Your task to perform on an android device: Turn off the flashlight Image 0: 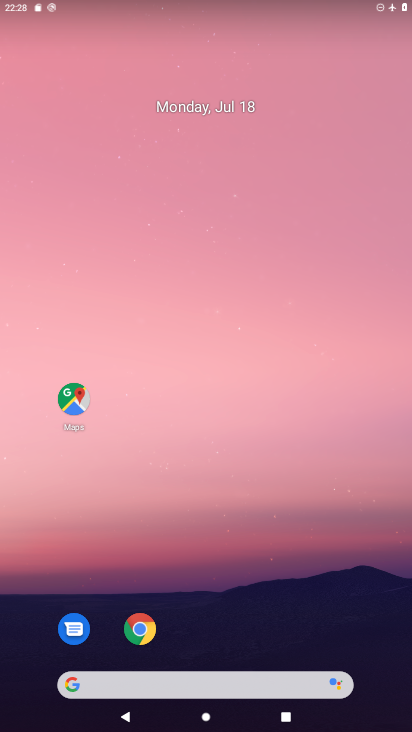
Step 0: drag from (153, 304) to (137, 74)
Your task to perform on an android device: Turn off the flashlight Image 1: 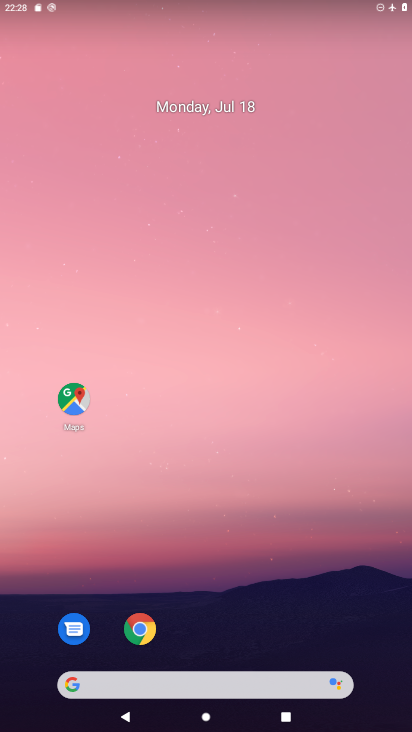
Step 1: drag from (314, 562) to (229, 20)
Your task to perform on an android device: Turn off the flashlight Image 2: 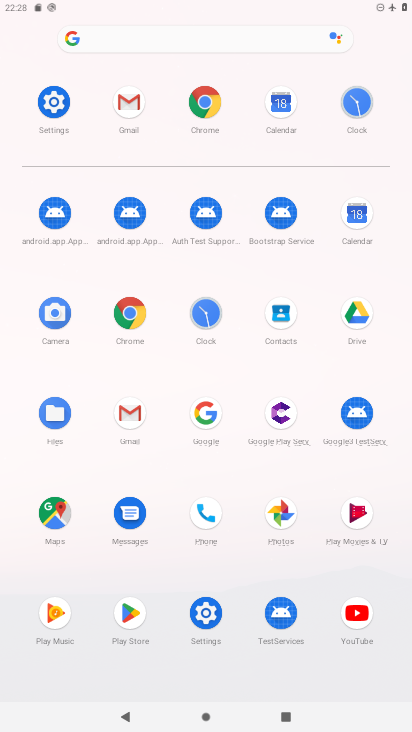
Step 2: click (58, 94)
Your task to perform on an android device: Turn off the flashlight Image 3: 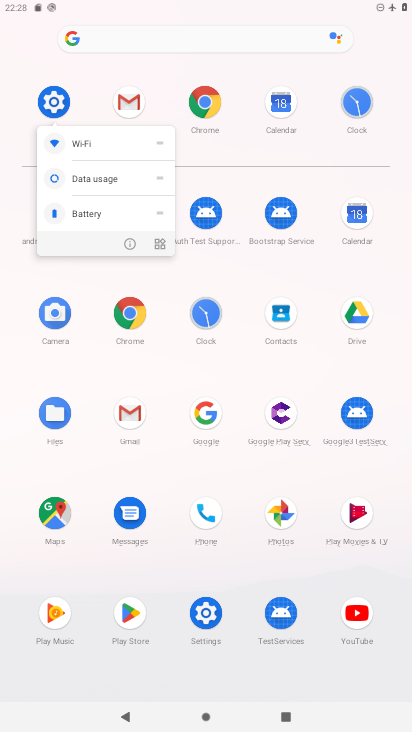
Step 3: click (67, 99)
Your task to perform on an android device: Turn off the flashlight Image 4: 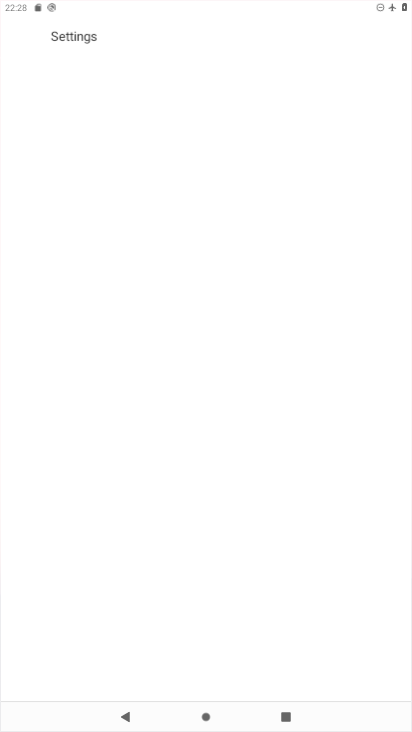
Step 4: click (47, 96)
Your task to perform on an android device: Turn off the flashlight Image 5: 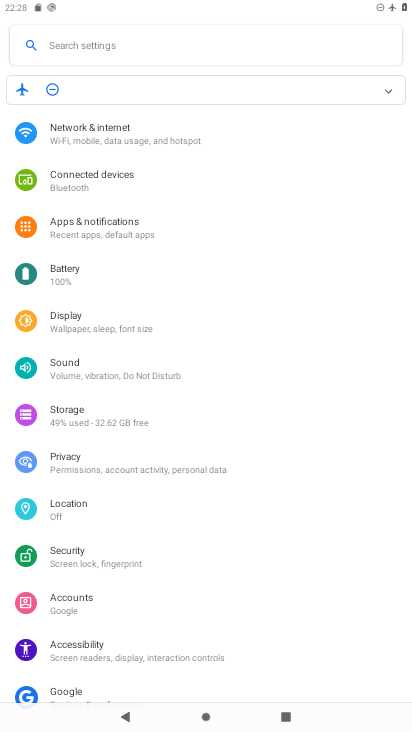
Step 5: click (114, 325)
Your task to perform on an android device: Turn off the flashlight Image 6: 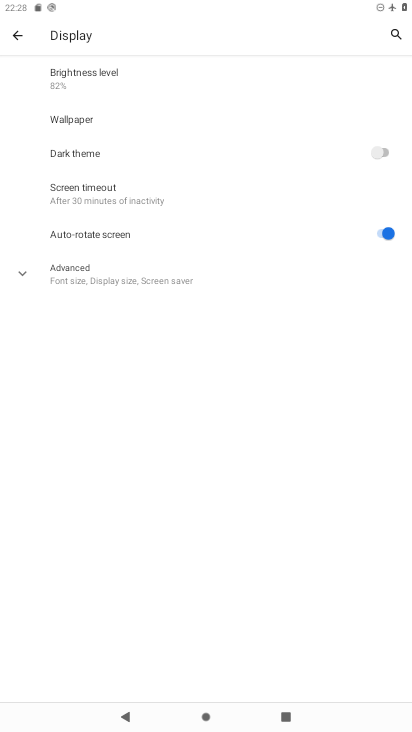
Step 6: task complete